Your task to perform on an android device: turn on translation in the chrome app Image 0: 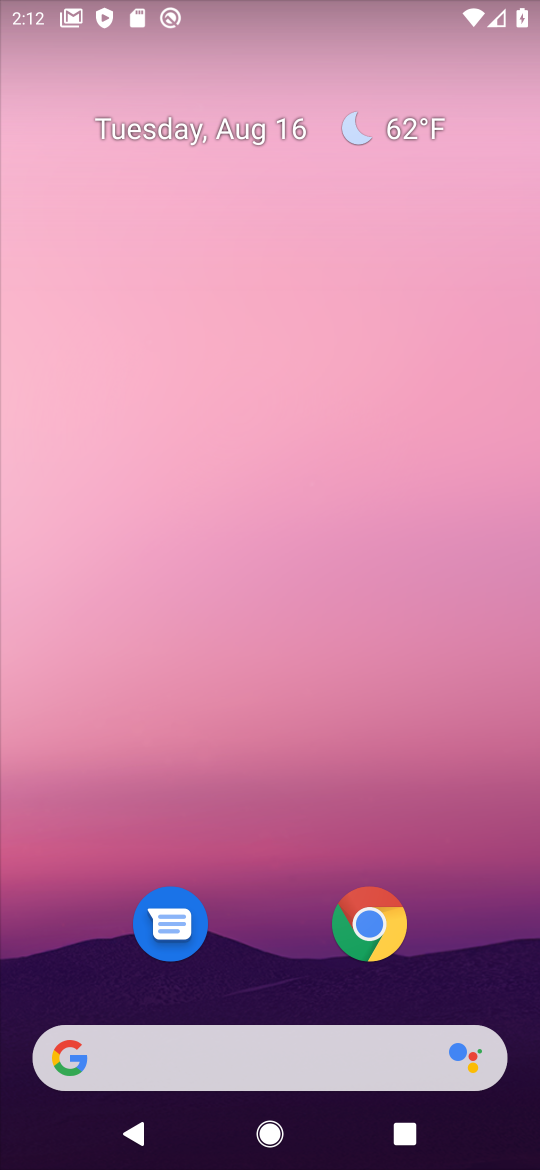
Step 0: click (375, 922)
Your task to perform on an android device: turn on translation in the chrome app Image 1: 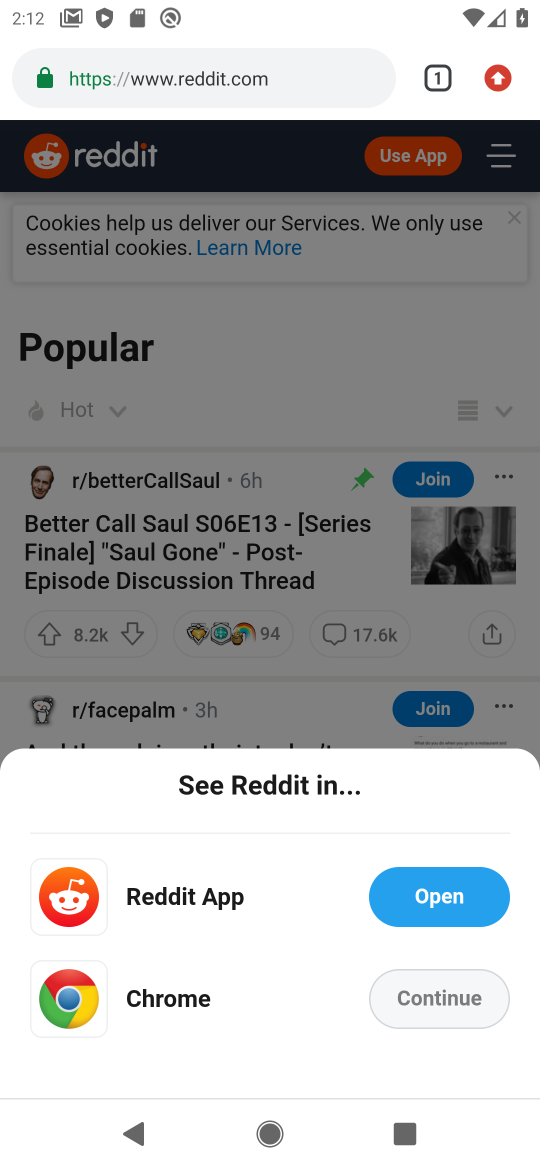
Step 1: click (497, 82)
Your task to perform on an android device: turn on translation in the chrome app Image 2: 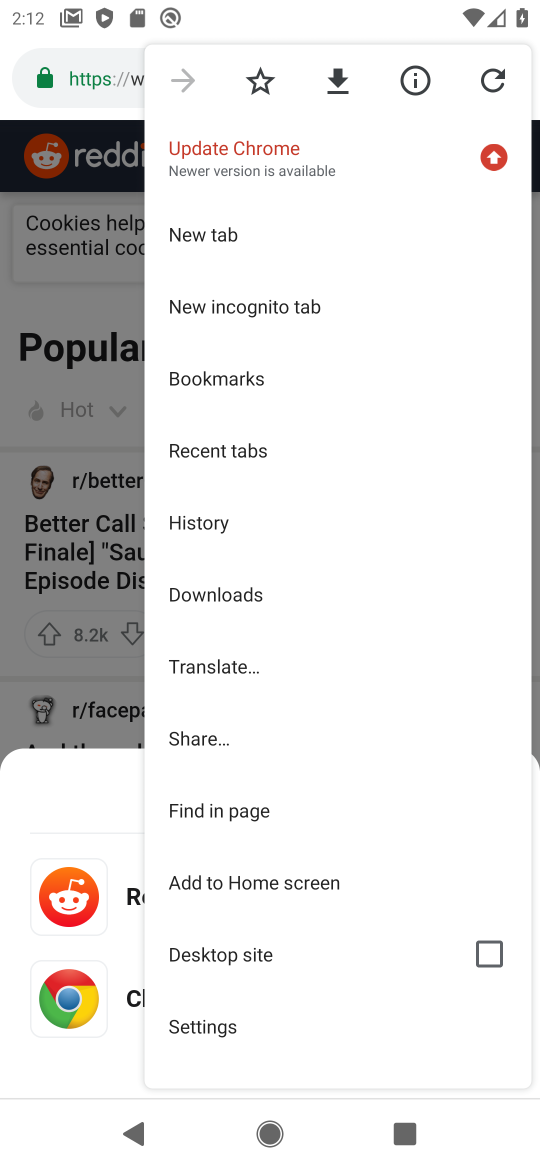
Step 2: drag from (276, 997) to (291, 548)
Your task to perform on an android device: turn on translation in the chrome app Image 3: 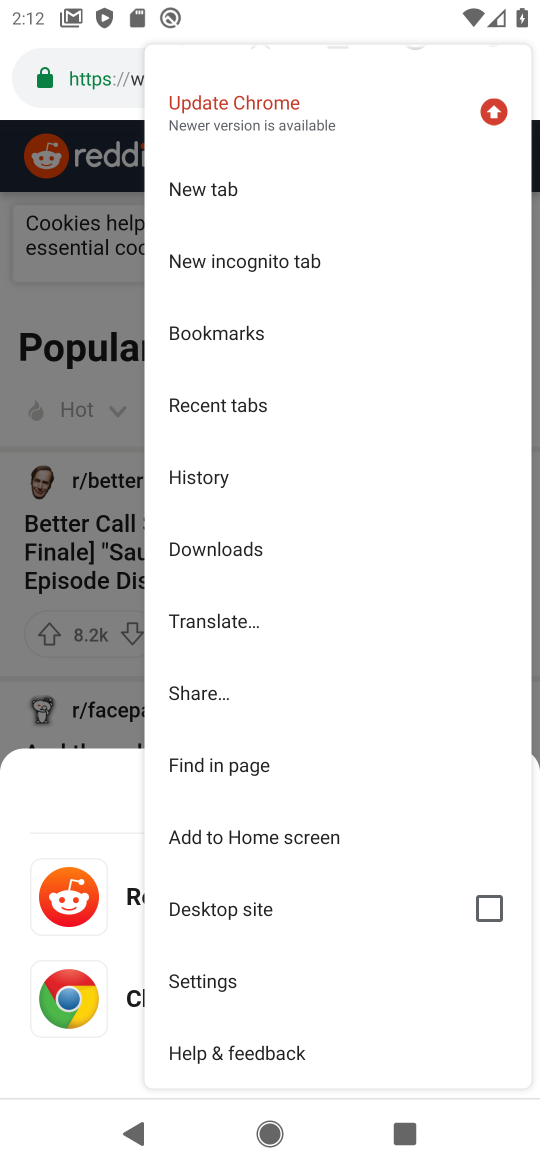
Step 3: click (198, 982)
Your task to perform on an android device: turn on translation in the chrome app Image 4: 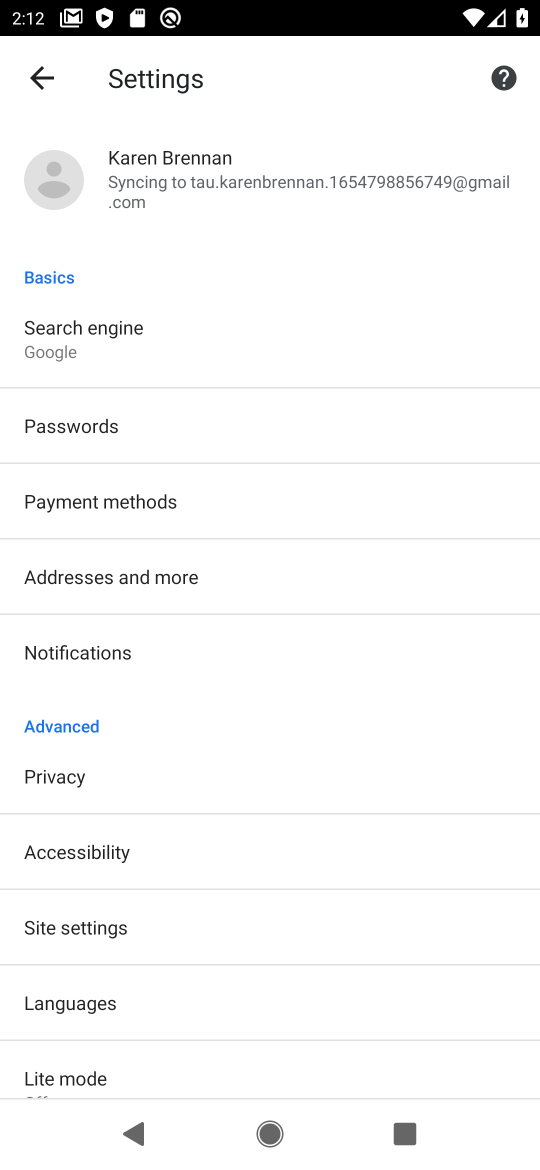
Step 4: drag from (280, 996) to (284, 542)
Your task to perform on an android device: turn on translation in the chrome app Image 5: 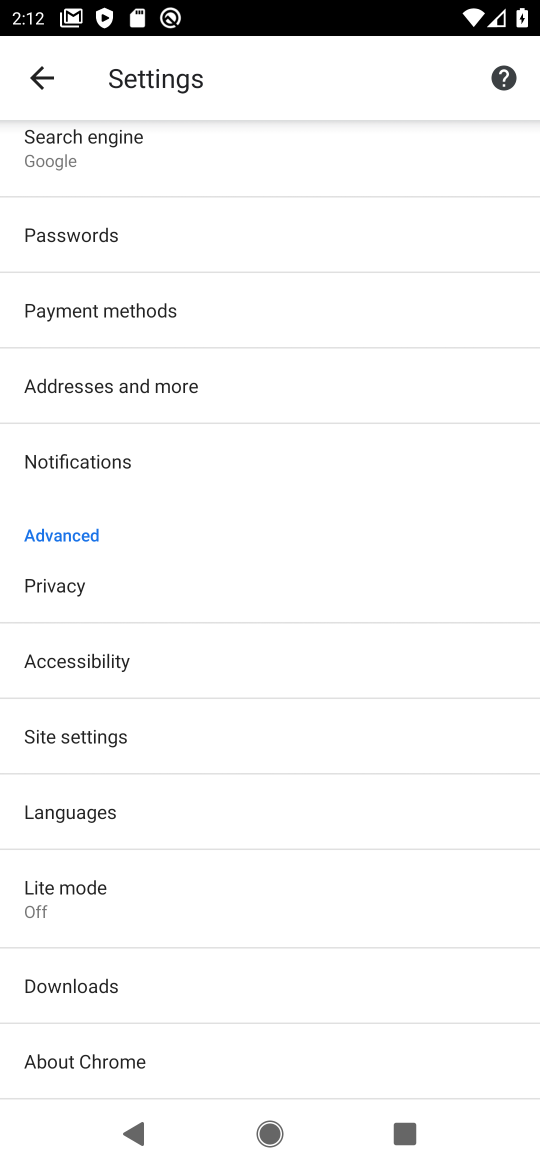
Step 5: click (64, 798)
Your task to perform on an android device: turn on translation in the chrome app Image 6: 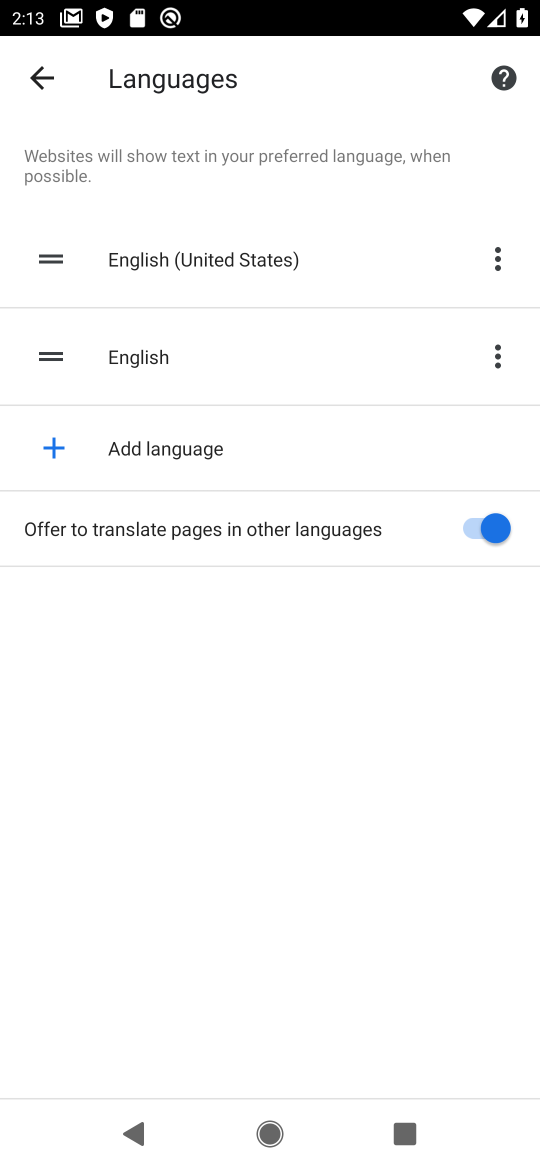
Step 6: task complete